Your task to perform on an android device: open wifi settings Image 0: 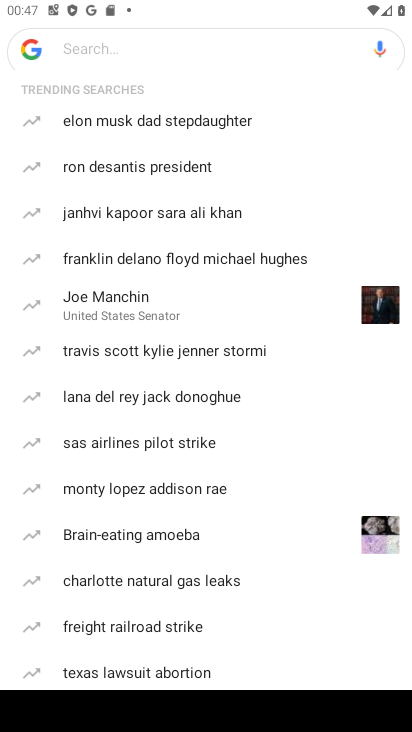
Step 0: press back button
Your task to perform on an android device: open wifi settings Image 1: 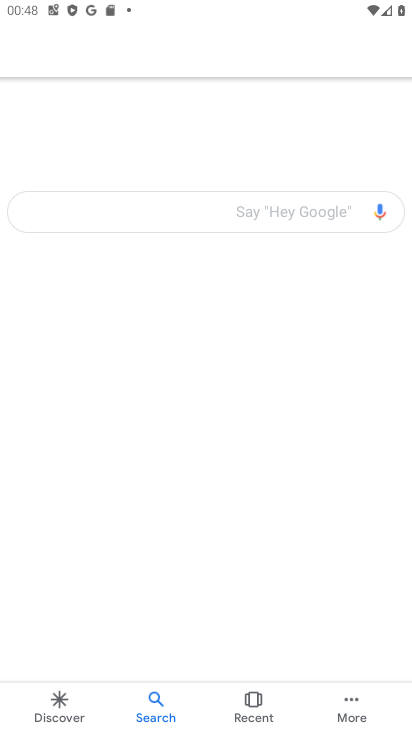
Step 1: press back button
Your task to perform on an android device: open wifi settings Image 2: 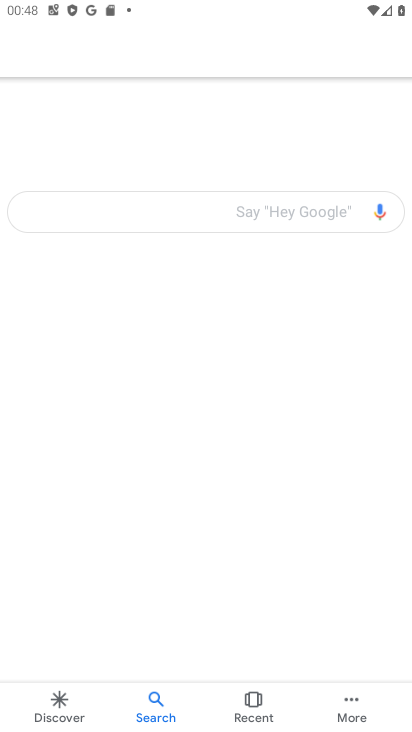
Step 2: press back button
Your task to perform on an android device: open wifi settings Image 3: 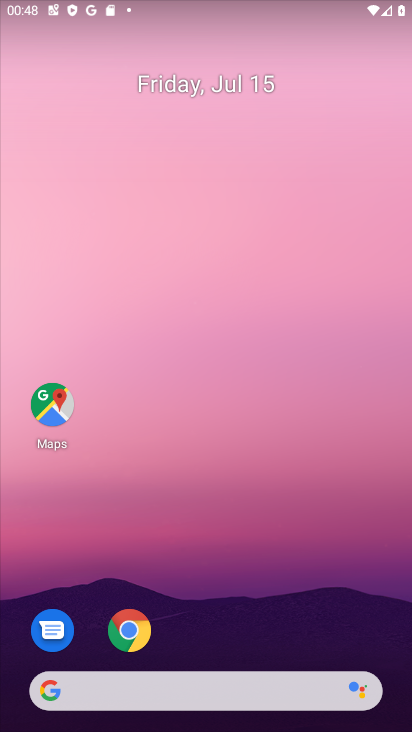
Step 3: drag from (256, 634) to (203, 0)
Your task to perform on an android device: open wifi settings Image 4: 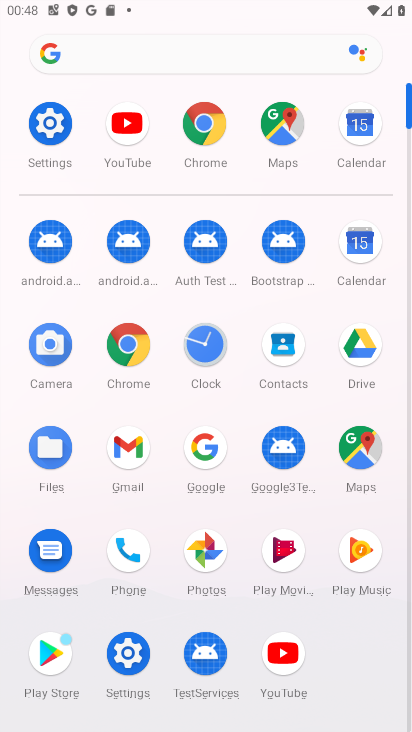
Step 4: click (51, 142)
Your task to perform on an android device: open wifi settings Image 5: 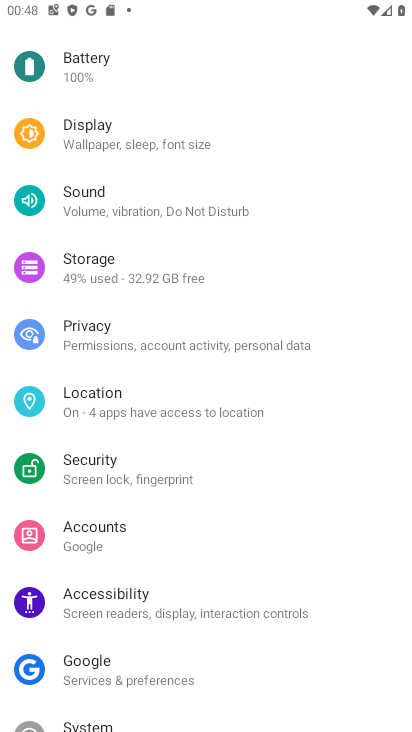
Step 5: drag from (136, 83) to (133, 463)
Your task to perform on an android device: open wifi settings Image 6: 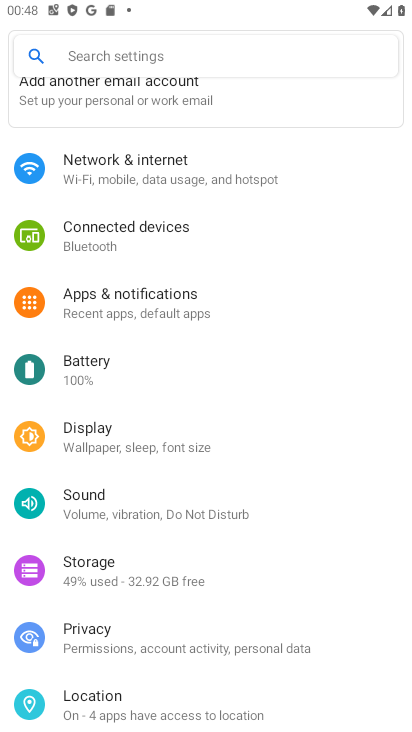
Step 6: click (153, 185)
Your task to perform on an android device: open wifi settings Image 7: 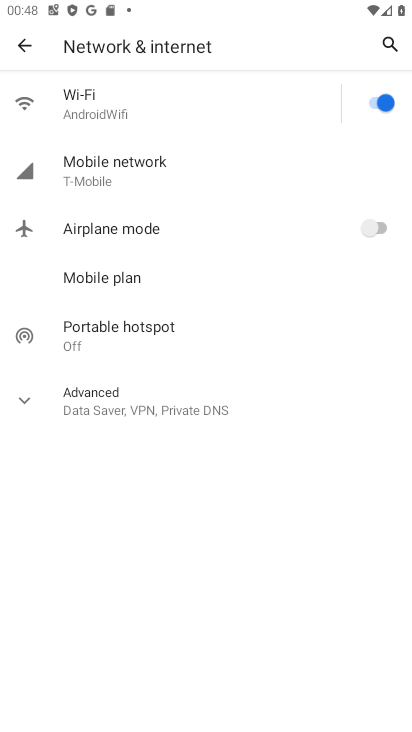
Step 7: task complete